Your task to perform on an android device: turn on sleep mode Image 0: 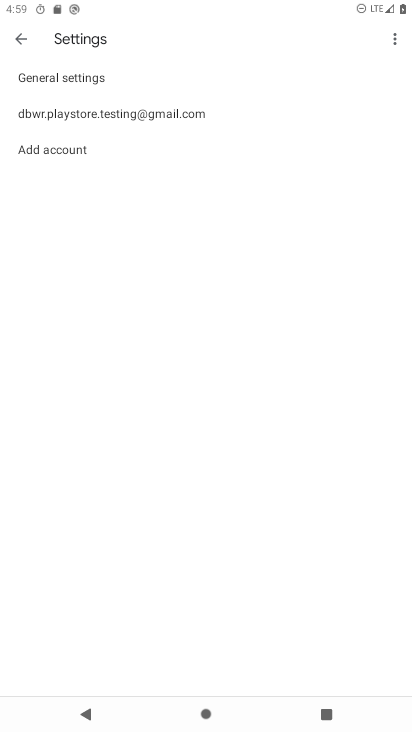
Step 0: drag from (286, 656) to (257, 130)
Your task to perform on an android device: turn on sleep mode Image 1: 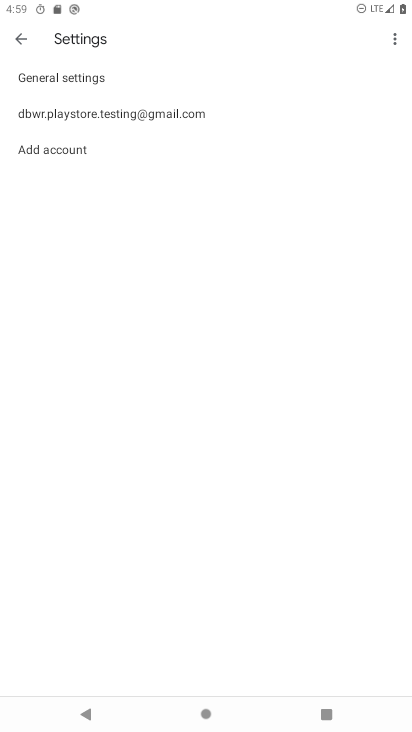
Step 1: press home button
Your task to perform on an android device: turn on sleep mode Image 2: 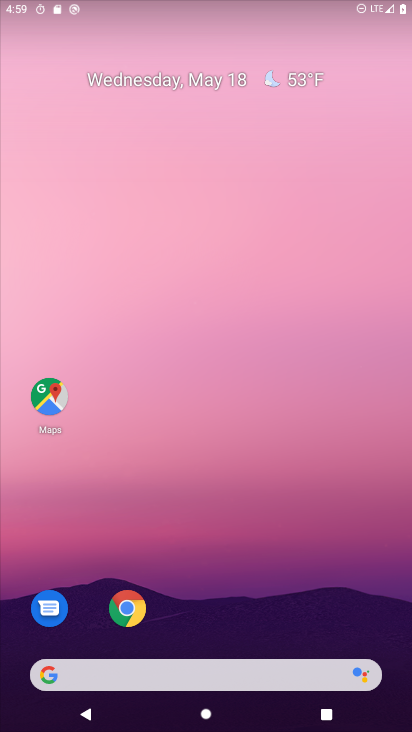
Step 2: drag from (263, 678) to (183, 91)
Your task to perform on an android device: turn on sleep mode Image 3: 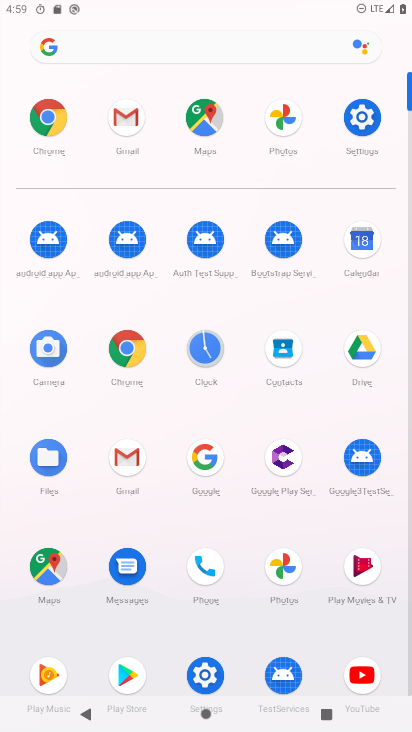
Step 3: click (362, 120)
Your task to perform on an android device: turn on sleep mode Image 4: 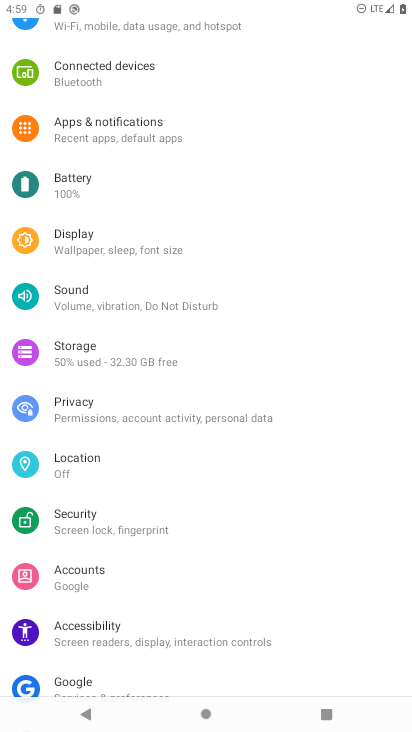
Step 4: drag from (108, 257) to (135, 578)
Your task to perform on an android device: turn on sleep mode Image 5: 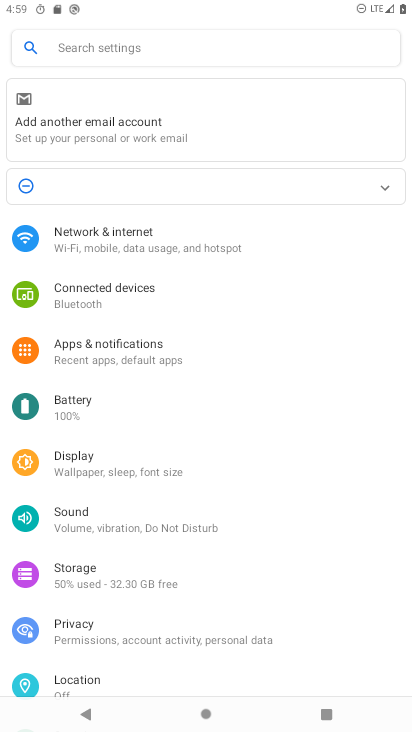
Step 5: drag from (163, 608) to (176, 278)
Your task to perform on an android device: turn on sleep mode Image 6: 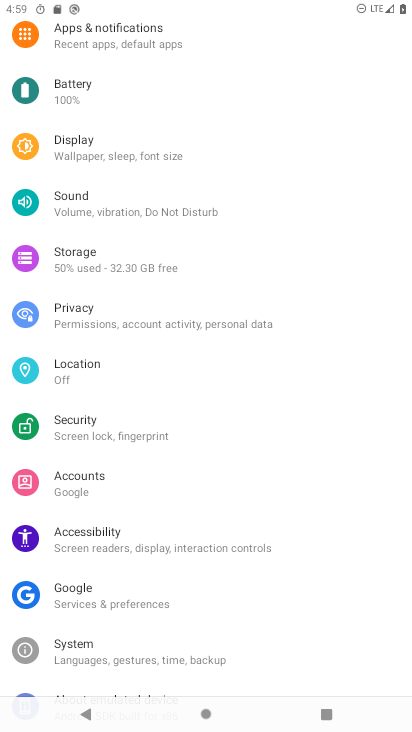
Step 6: click (126, 149)
Your task to perform on an android device: turn on sleep mode Image 7: 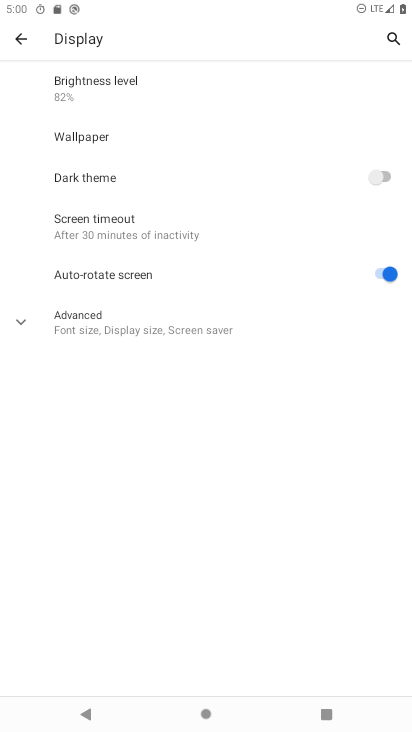
Step 7: task complete